Your task to perform on an android device: open sync settings in chrome Image 0: 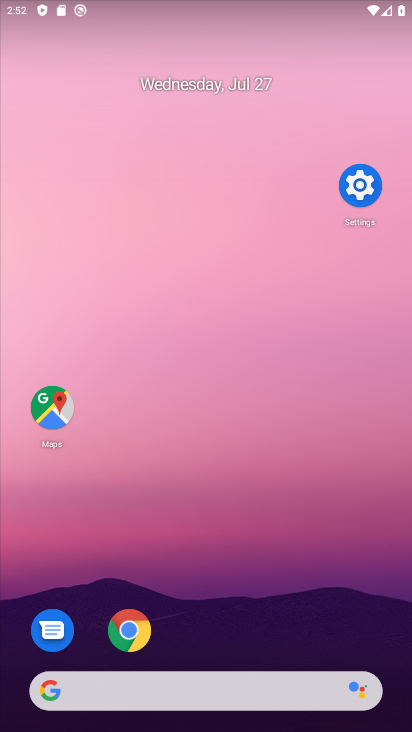
Step 0: press home button
Your task to perform on an android device: open sync settings in chrome Image 1: 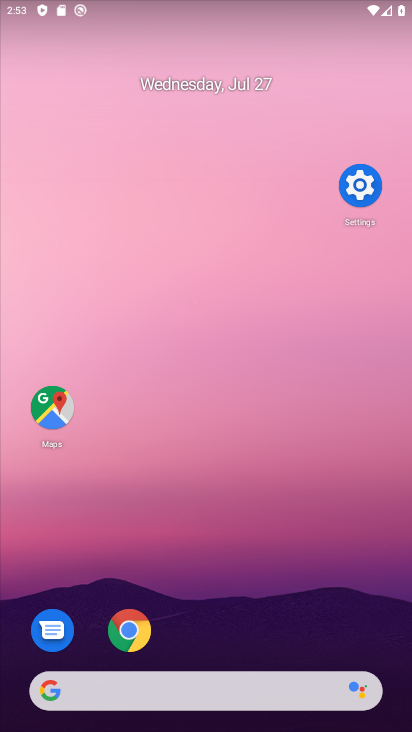
Step 1: drag from (223, 646) to (256, 143)
Your task to perform on an android device: open sync settings in chrome Image 2: 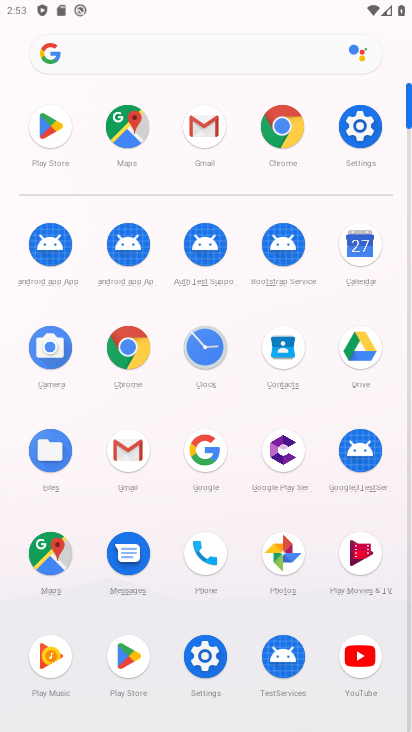
Step 2: click (278, 129)
Your task to perform on an android device: open sync settings in chrome Image 3: 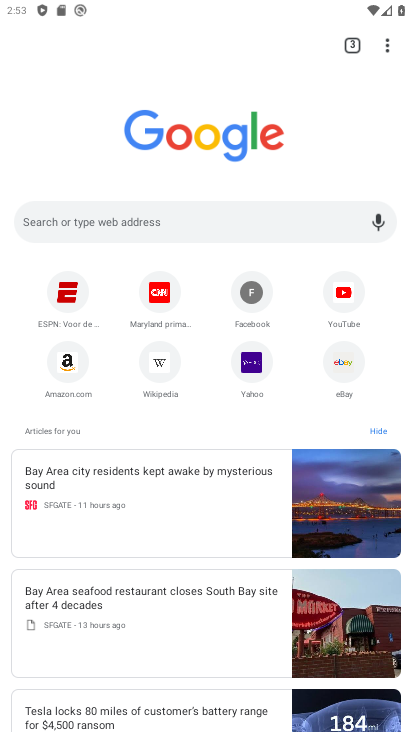
Step 3: drag from (386, 47) to (239, 437)
Your task to perform on an android device: open sync settings in chrome Image 4: 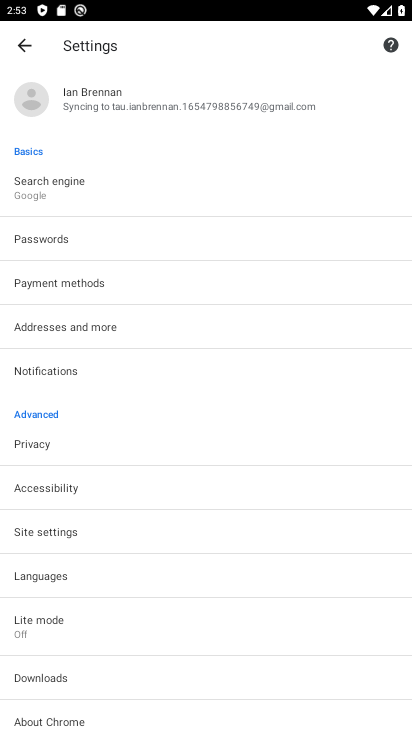
Step 4: click (126, 102)
Your task to perform on an android device: open sync settings in chrome Image 5: 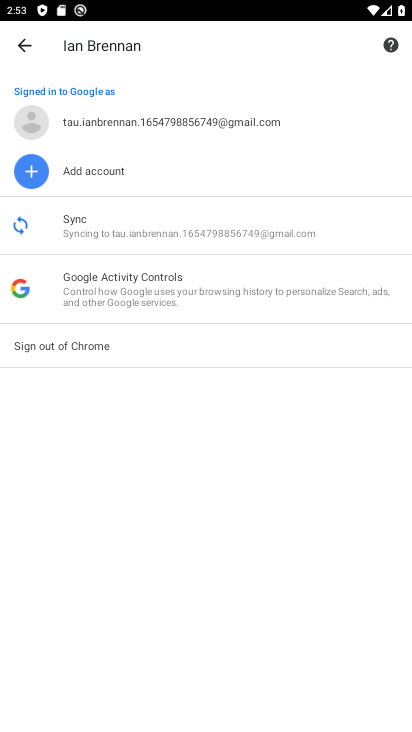
Step 5: click (136, 220)
Your task to perform on an android device: open sync settings in chrome Image 6: 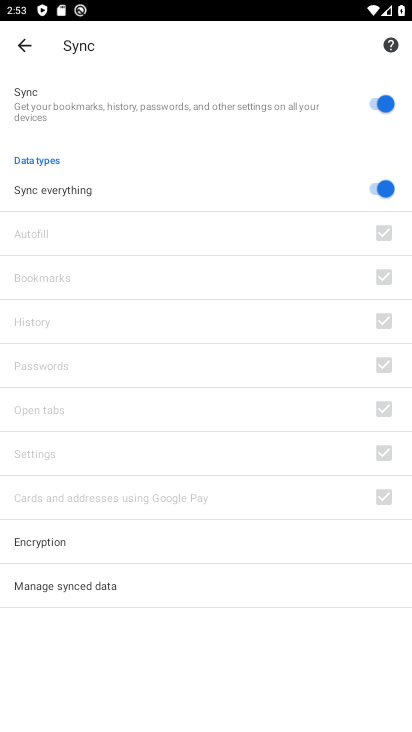
Step 6: task complete